Your task to perform on an android device: Show me the alarms in the clock app Image 0: 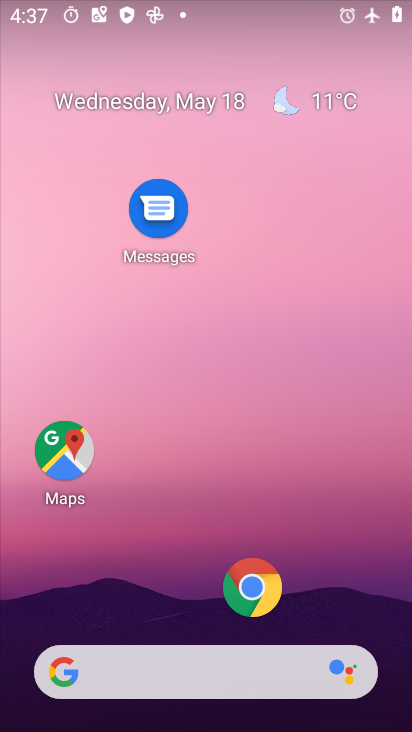
Step 0: drag from (274, 621) to (206, 149)
Your task to perform on an android device: Show me the alarms in the clock app Image 1: 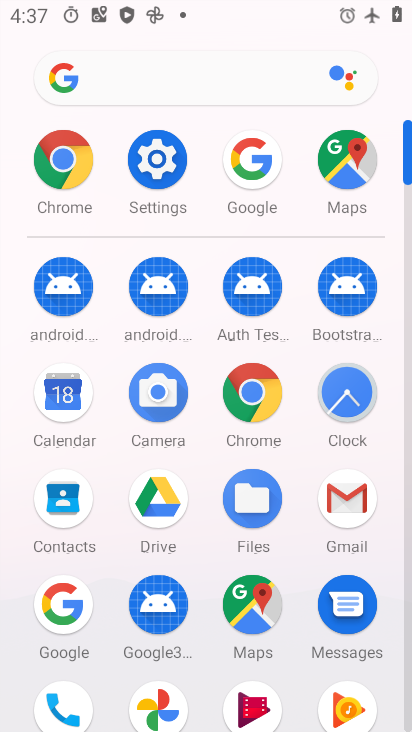
Step 1: click (362, 415)
Your task to perform on an android device: Show me the alarms in the clock app Image 2: 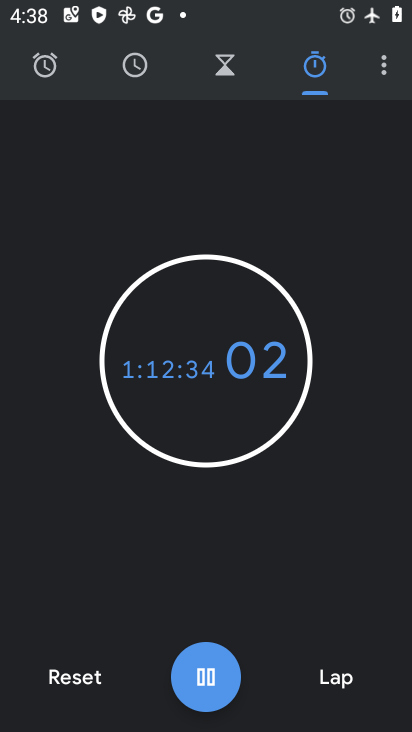
Step 2: click (32, 72)
Your task to perform on an android device: Show me the alarms in the clock app Image 3: 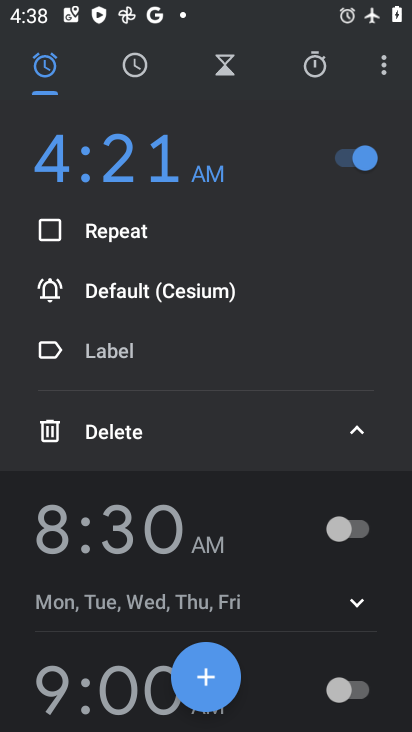
Step 3: click (216, 669)
Your task to perform on an android device: Show me the alarms in the clock app Image 4: 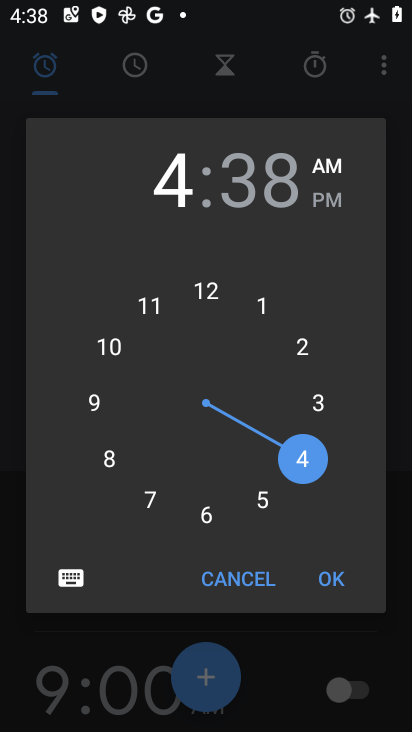
Step 4: click (333, 584)
Your task to perform on an android device: Show me the alarms in the clock app Image 5: 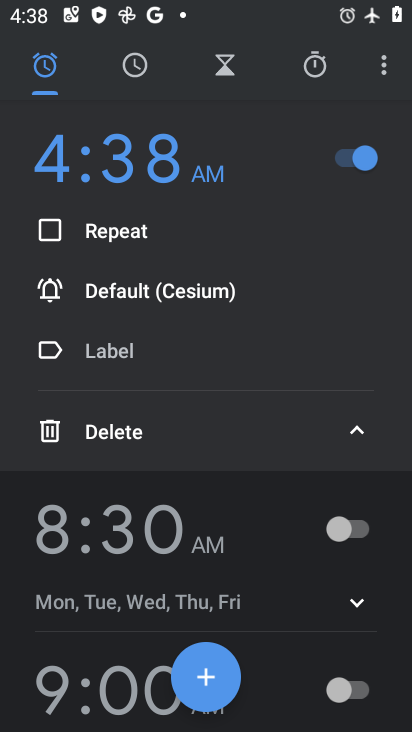
Step 5: task complete